Your task to perform on an android device: turn on the 24-hour format for clock Image 0: 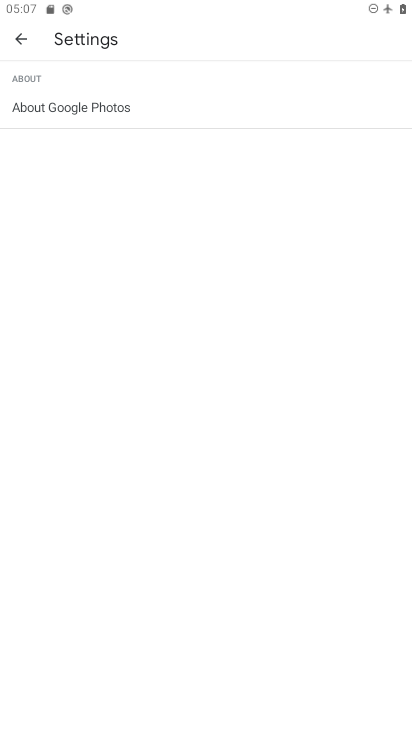
Step 0: press home button
Your task to perform on an android device: turn on the 24-hour format for clock Image 1: 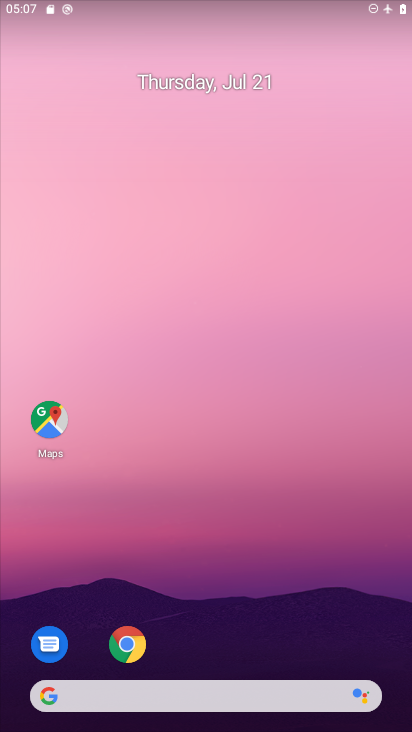
Step 1: drag from (193, 639) to (186, 269)
Your task to perform on an android device: turn on the 24-hour format for clock Image 2: 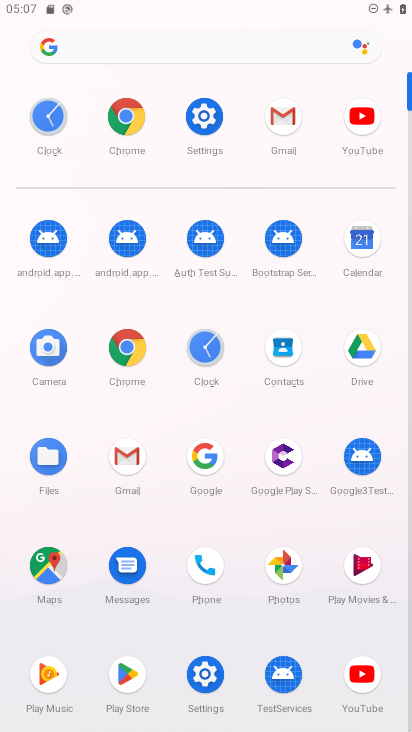
Step 2: click (190, 348)
Your task to perform on an android device: turn on the 24-hour format for clock Image 3: 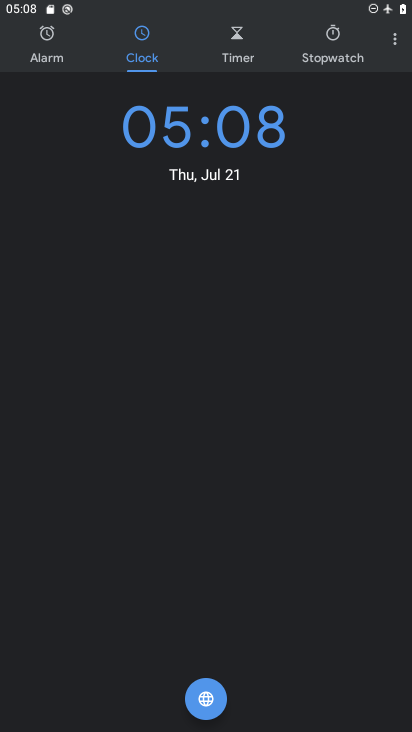
Step 3: click (397, 39)
Your task to perform on an android device: turn on the 24-hour format for clock Image 4: 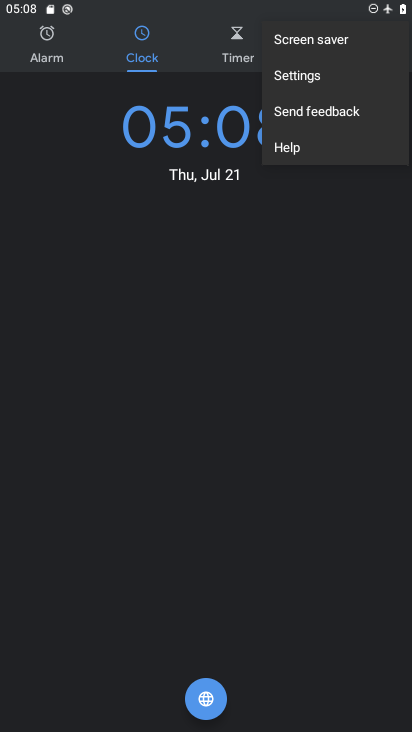
Step 4: click (294, 80)
Your task to perform on an android device: turn on the 24-hour format for clock Image 5: 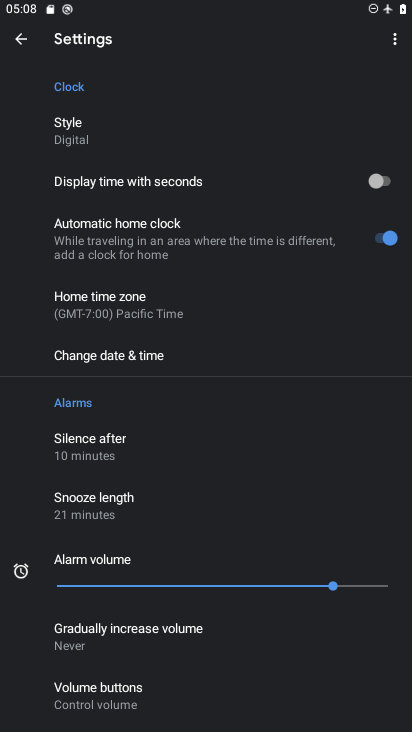
Step 5: drag from (191, 627) to (210, 447)
Your task to perform on an android device: turn on the 24-hour format for clock Image 6: 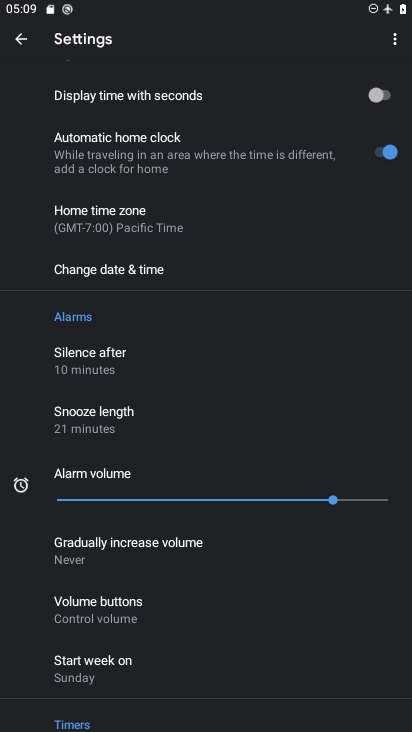
Step 6: click (136, 276)
Your task to perform on an android device: turn on the 24-hour format for clock Image 7: 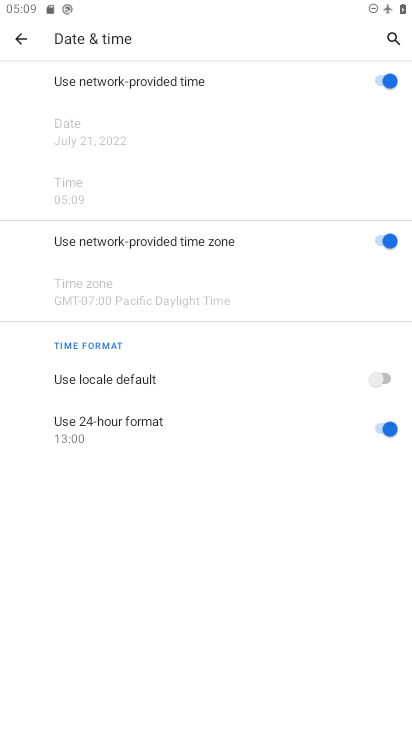
Step 7: task complete